Your task to perform on an android device: empty trash in google photos Image 0: 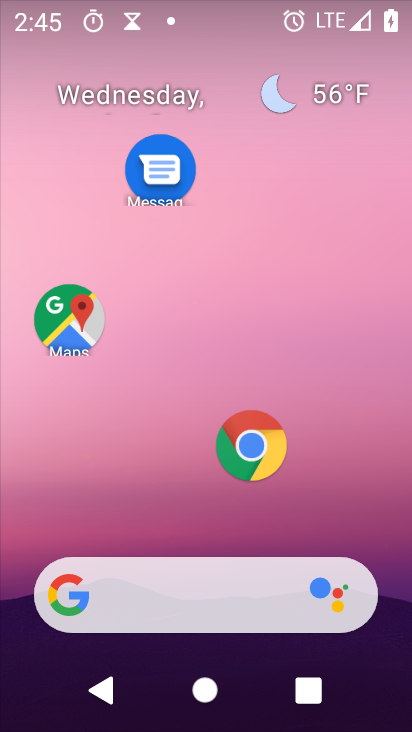
Step 0: drag from (176, 501) to (325, 45)
Your task to perform on an android device: empty trash in google photos Image 1: 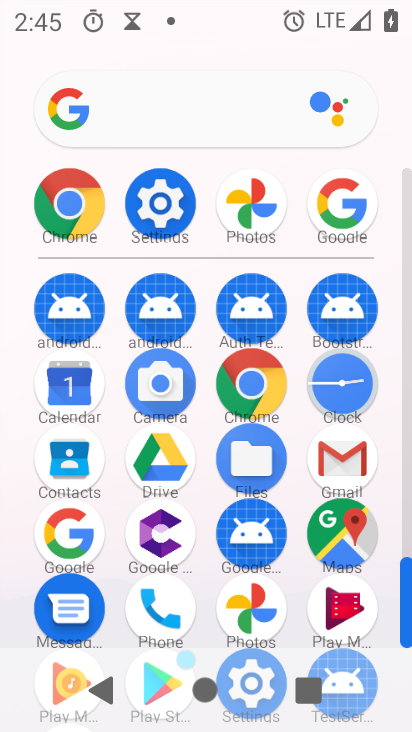
Step 1: click (268, 622)
Your task to perform on an android device: empty trash in google photos Image 2: 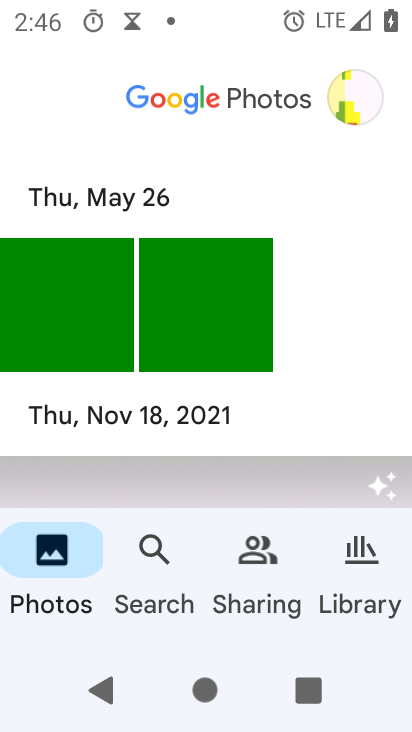
Step 2: drag from (333, 474) to (307, 117)
Your task to perform on an android device: empty trash in google photos Image 3: 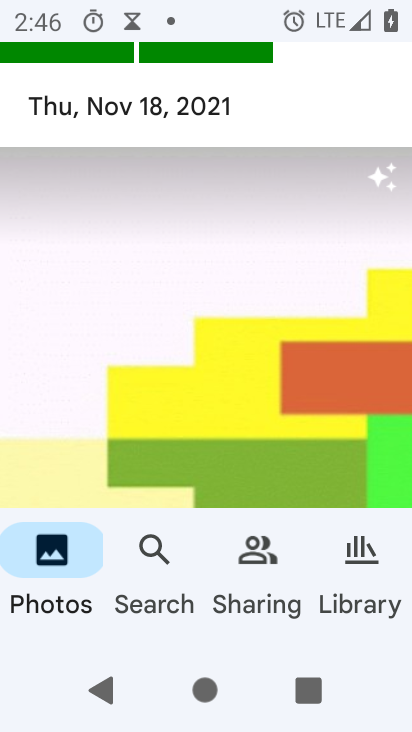
Step 3: click (362, 592)
Your task to perform on an android device: empty trash in google photos Image 4: 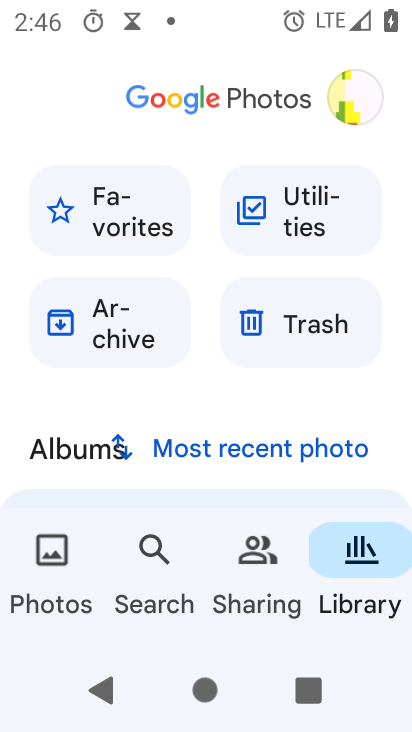
Step 4: click (284, 345)
Your task to perform on an android device: empty trash in google photos Image 5: 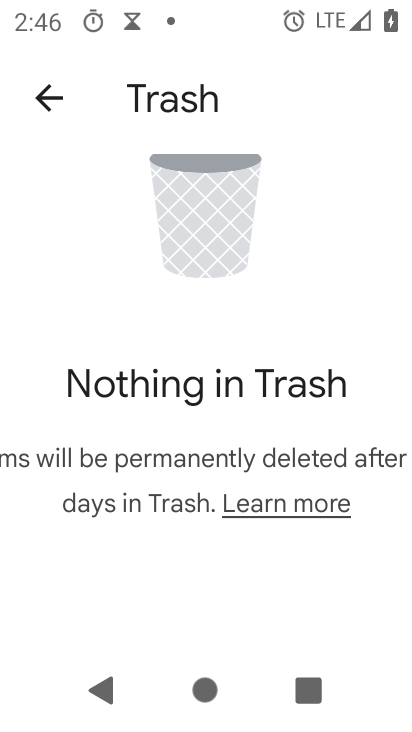
Step 5: task complete